Your task to perform on an android device: Go to Maps Image 0: 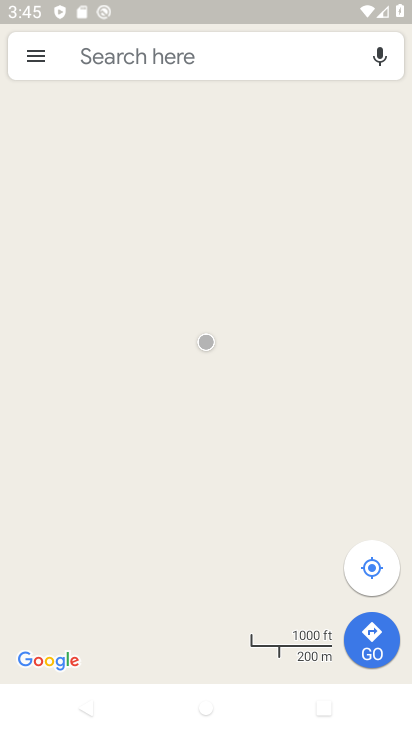
Step 0: press home button
Your task to perform on an android device: Go to Maps Image 1: 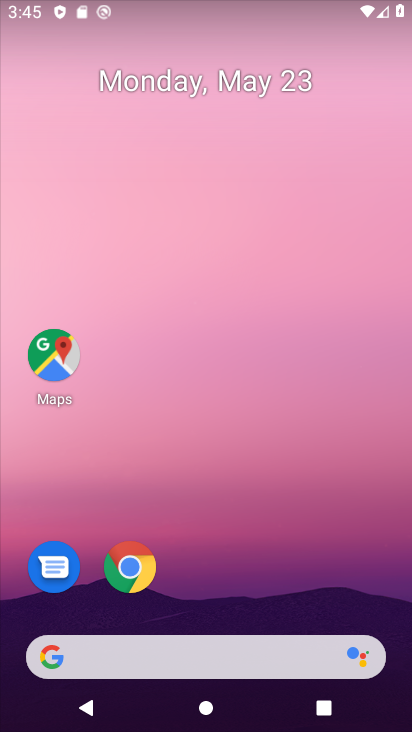
Step 1: click (57, 351)
Your task to perform on an android device: Go to Maps Image 2: 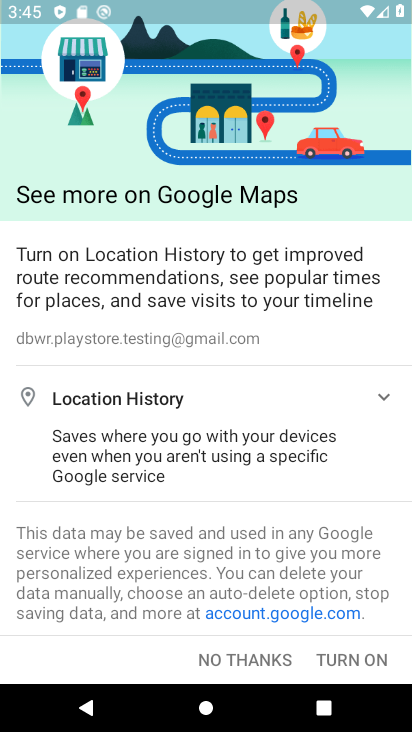
Step 2: click (232, 665)
Your task to perform on an android device: Go to Maps Image 3: 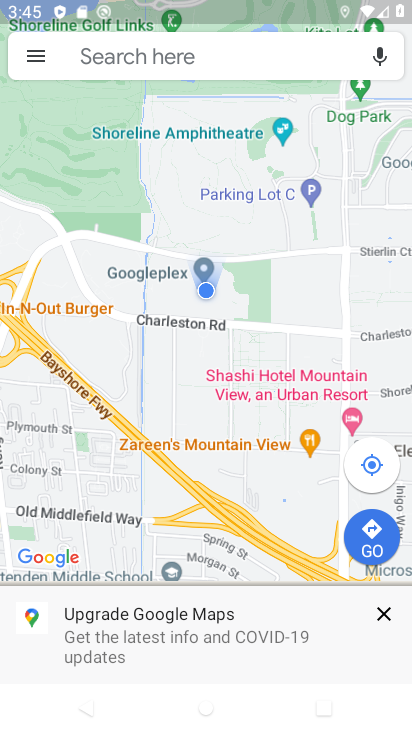
Step 3: task complete